Your task to perform on an android device: See recent photos Image 0: 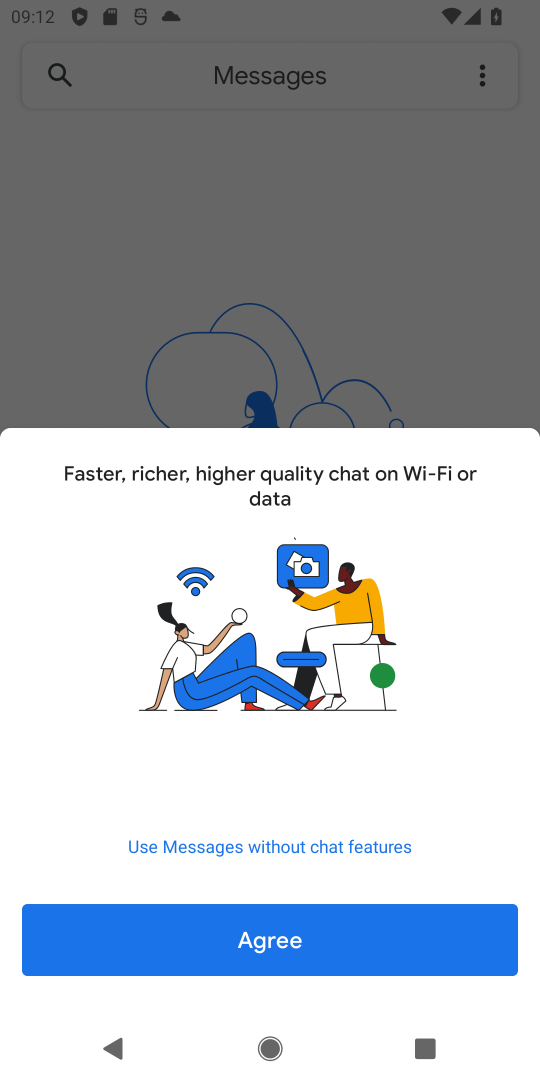
Step 0: press home button
Your task to perform on an android device: See recent photos Image 1: 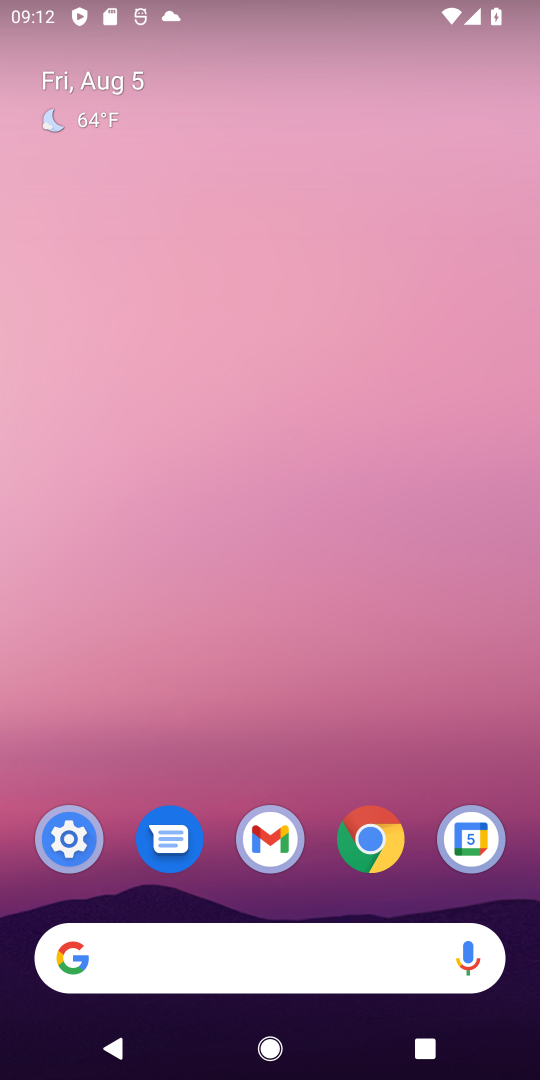
Step 1: drag from (316, 652) to (314, 13)
Your task to perform on an android device: See recent photos Image 2: 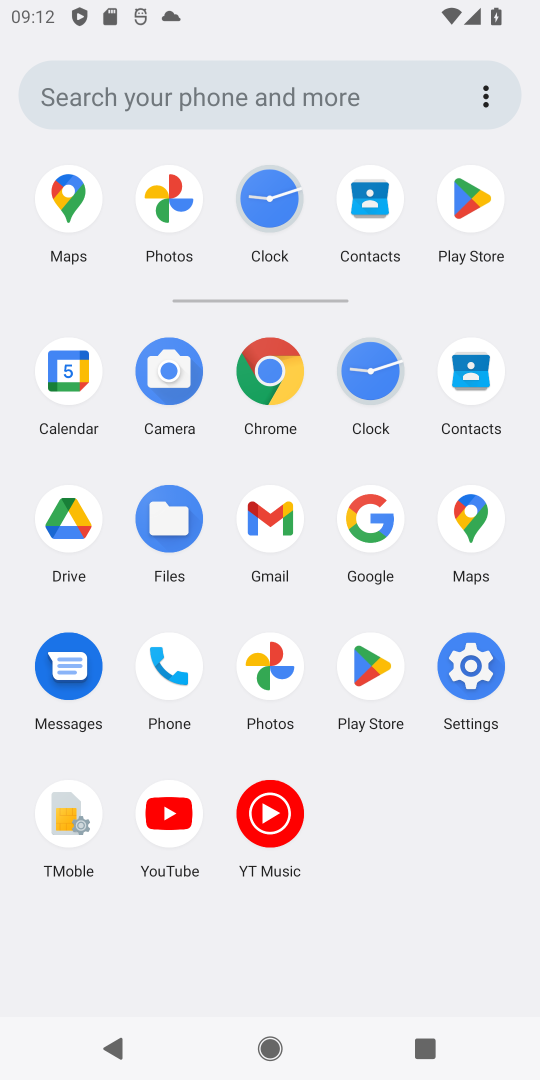
Step 2: click (274, 666)
Your task to perform on an android device: See recent photos Image 3: 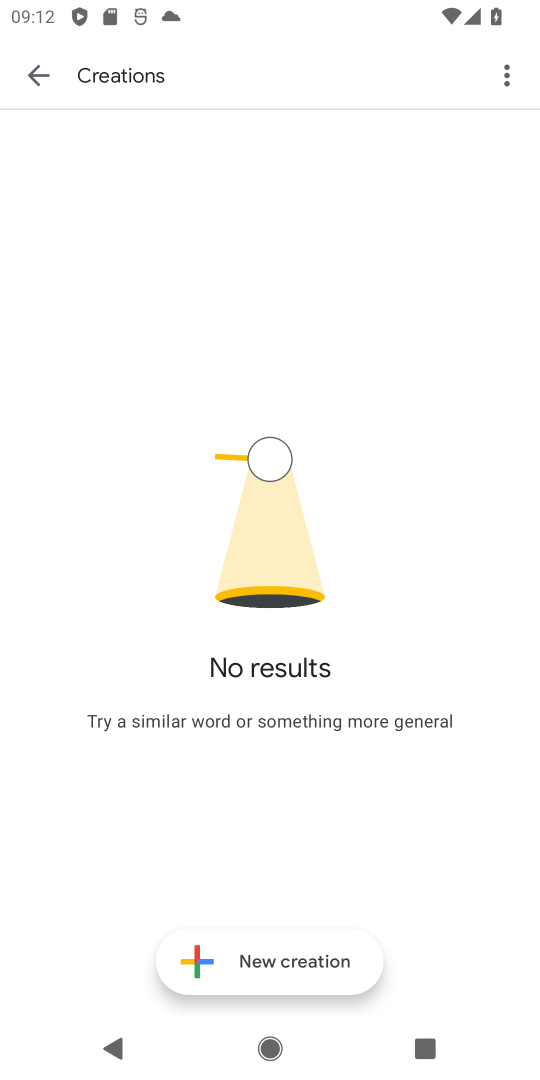
Step 3: click (40, 70)
Your task to perform on an android device: See recent photos Image 4: 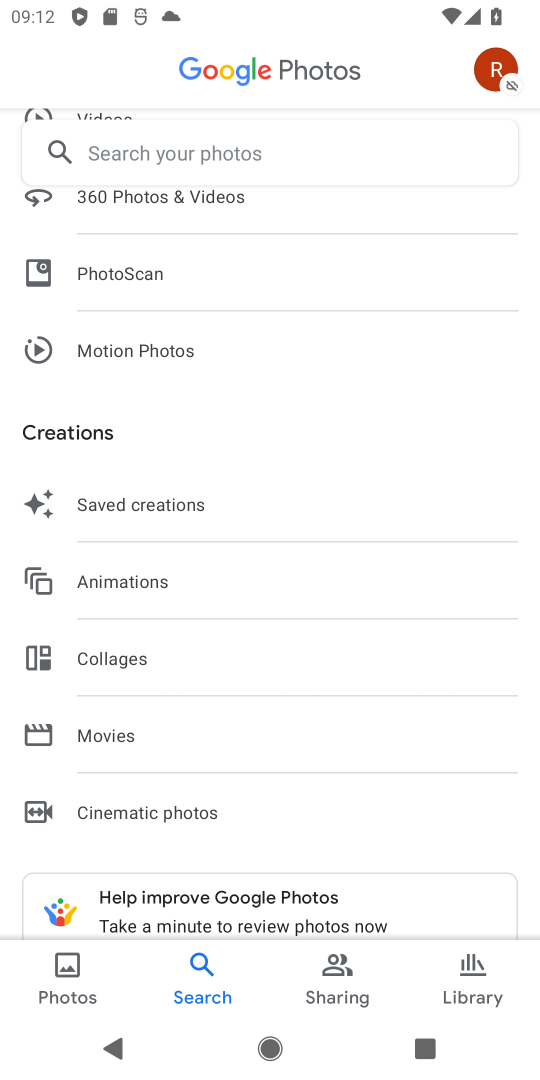
Step 4: drag from (208, 307) to (197, 829)
Your task to perform on an android device: See recent photos Image 5: 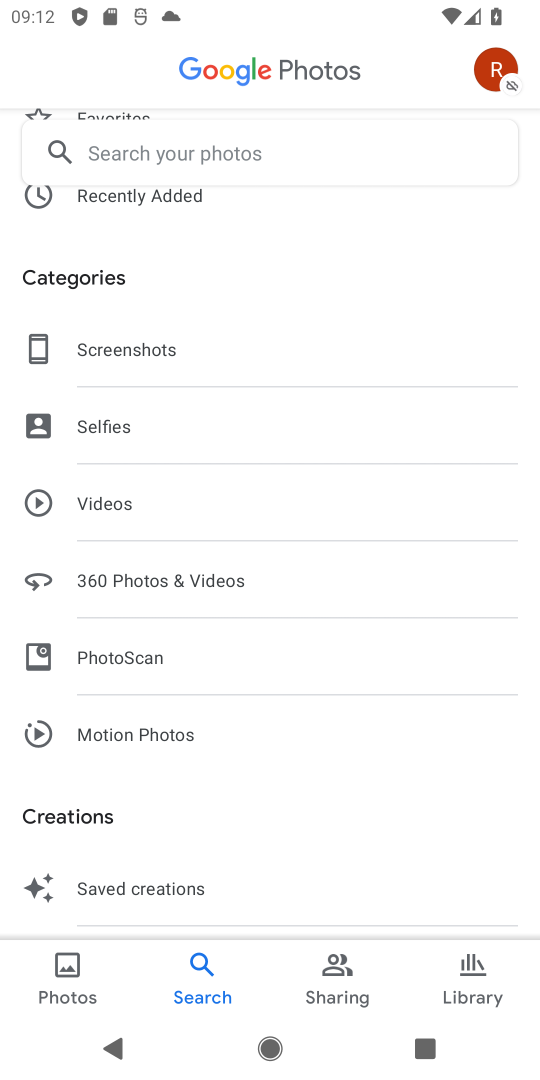
Step 5: click (68, 983)
Your task to perform on an android device: See recent photos Image 6: 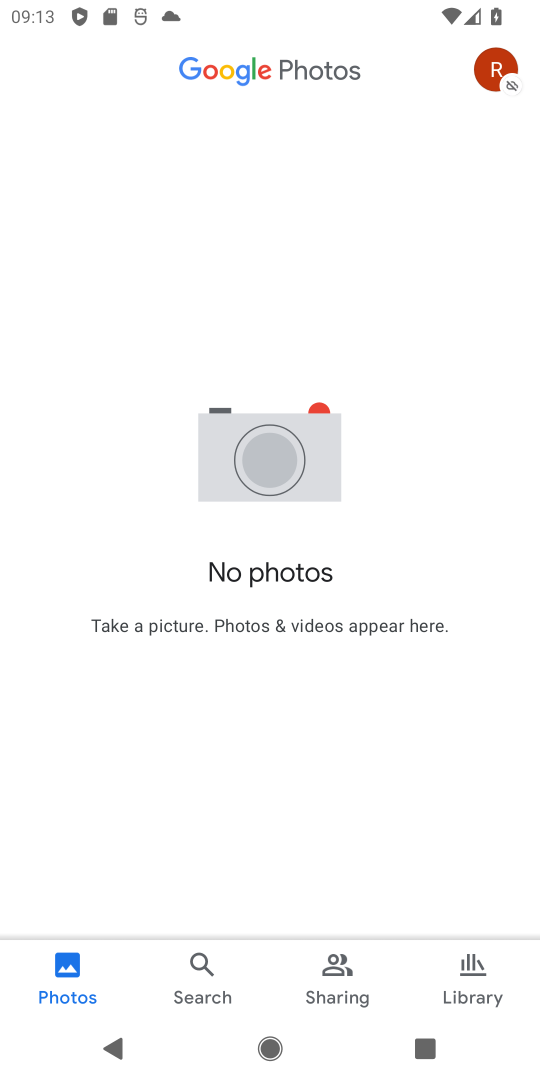
Step 6: click (81, 975)
Your task to perform on an android device: See recent photos Image 7: 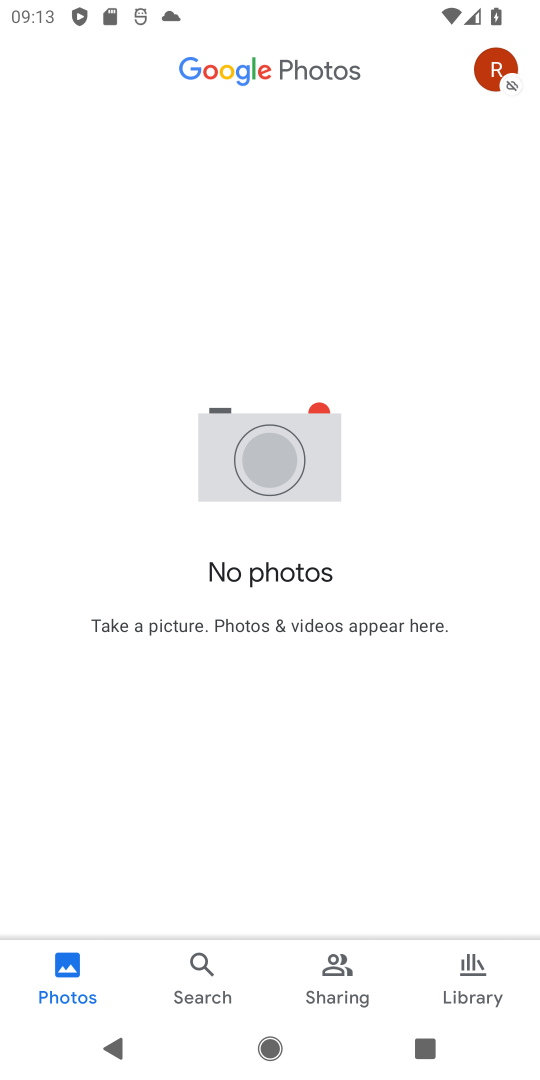
Step 7: task complete